Your task to perform on an android device: turn off notifications settings in the gmail app Image 0: 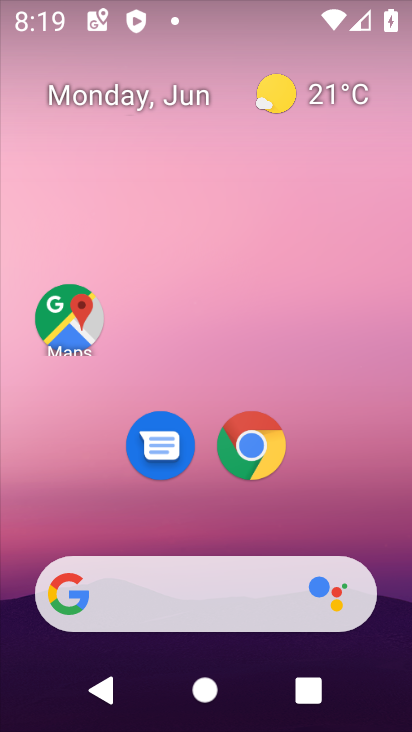
Step 0: drag from (195, 521) to (296, 6)
Your task to perform on an android device: turn off notifications settings in the gmail app Image 1: 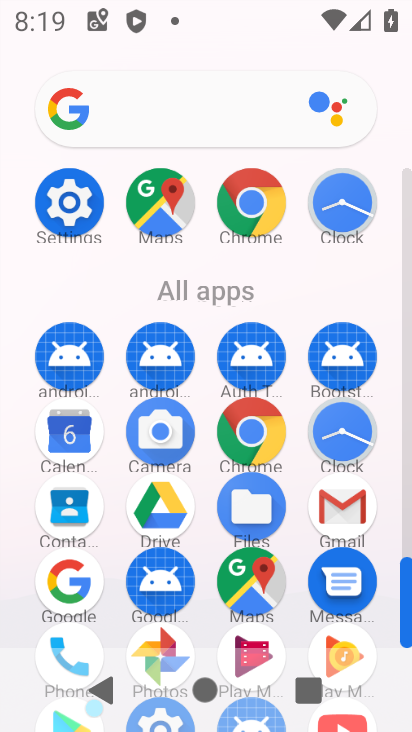
Step 1: click (342, 516)
Your task to perform on an android device: turn off notifications settings in the gmail app Image 2: 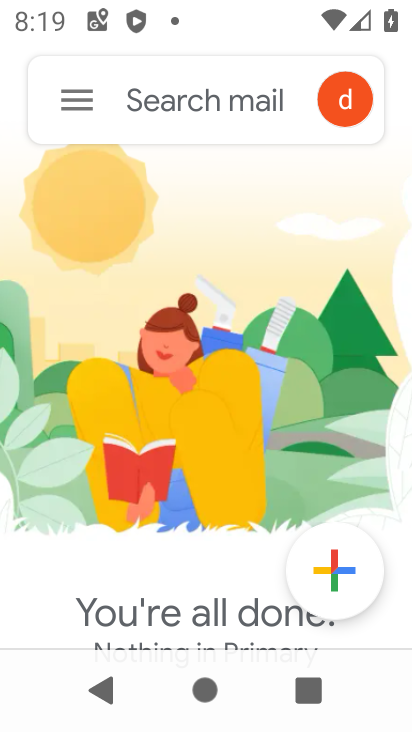
Step 2: click (84, 89)
Your task to perform on an android device: turn off notifications settings in the gmail app Image 3: 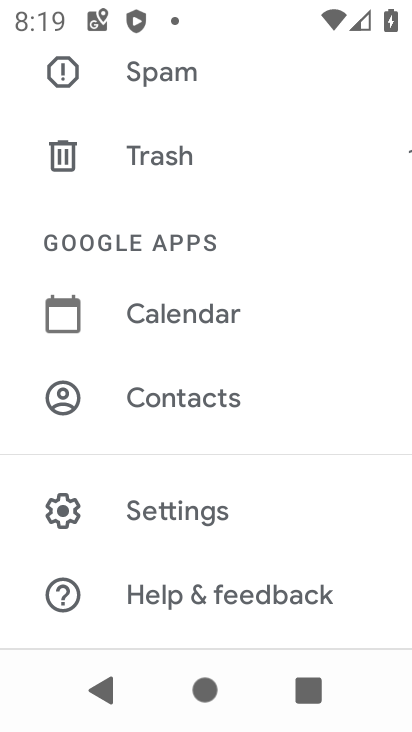
Step 3: click (147, 511)
Your task to perform on an android device: turn off notifications settings in the gmail app Image 4: 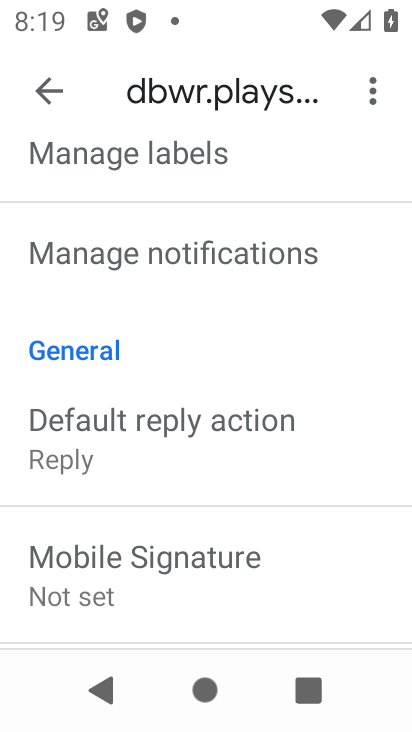
Step 4: click (183, 256)
Your task to perform on an android device: turn off notifications settings in the gmail app Image 5: 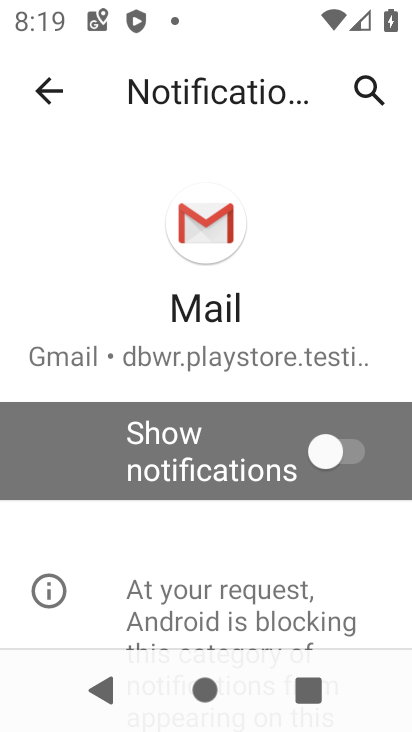
Step 5: task complete